Your task to perform on an android device: Go to eBay Image 0: 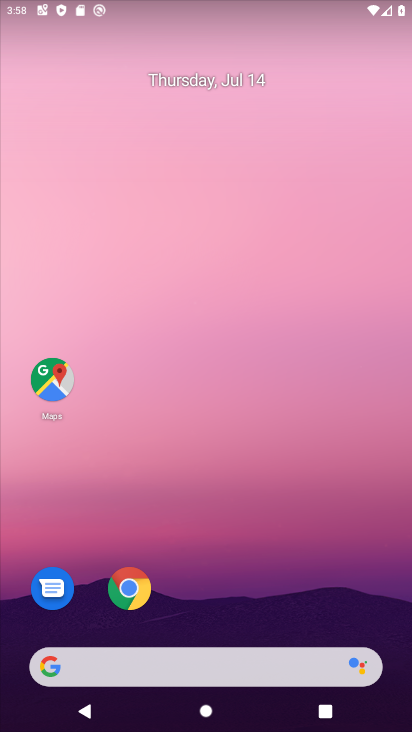
Step 0: drag from (270, 491) to (247, 8)
Your task to perform on an android device: Go to eBay Image 1: 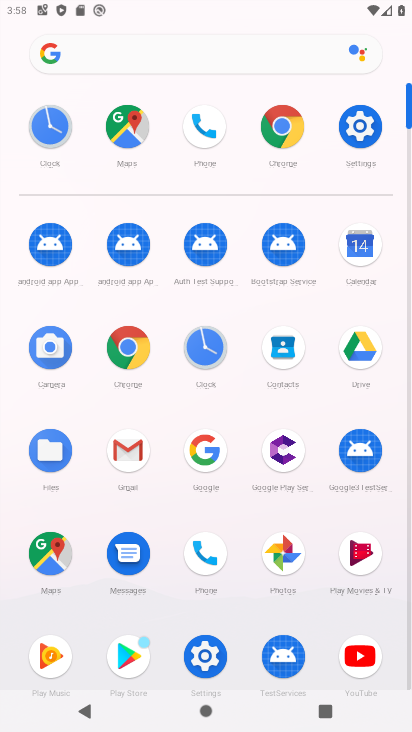
Step 1: click (285, 139)
Your task to perform on an android device: Go to eBay Image 2: 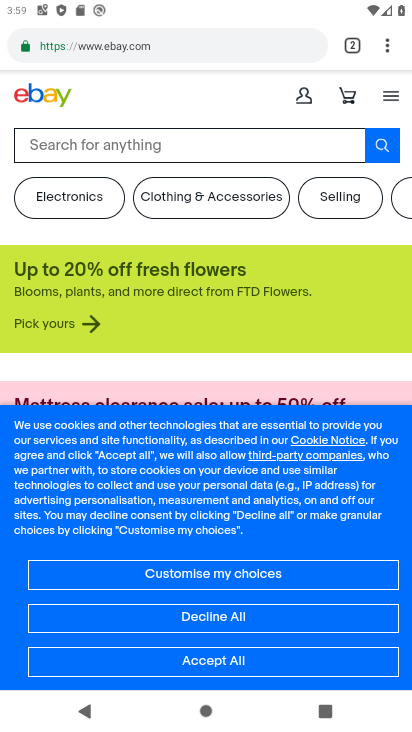
Step 2: task complete